Your task to perform on an android device: What is the recent news? Image 0: 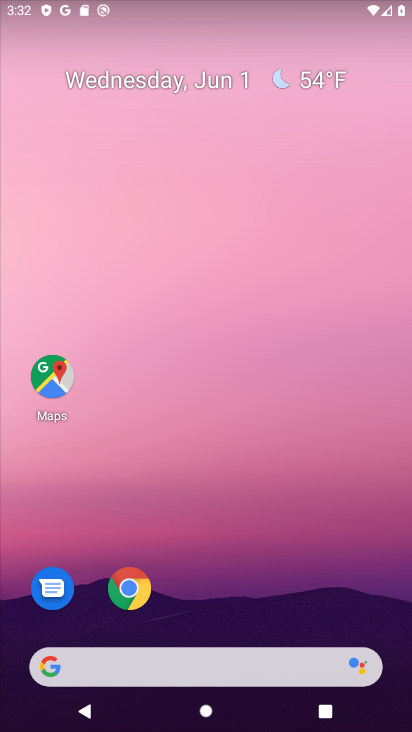
Step 0: click (238, 660)
Your task to perform on an android device: What is the recent news? Image 1: 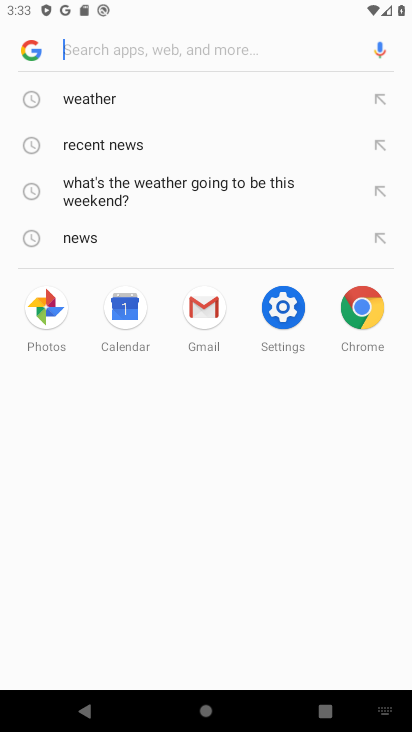
Step 1: click (136, 141)
Your task to perform on an android device: What is the recent news? Image 2: 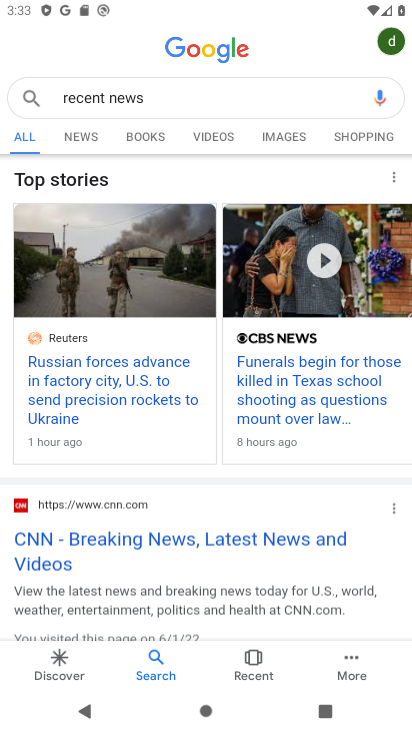
Step 2: task complete